Your task to perform on an android device: turn off javascript in the chrome app Image 0: 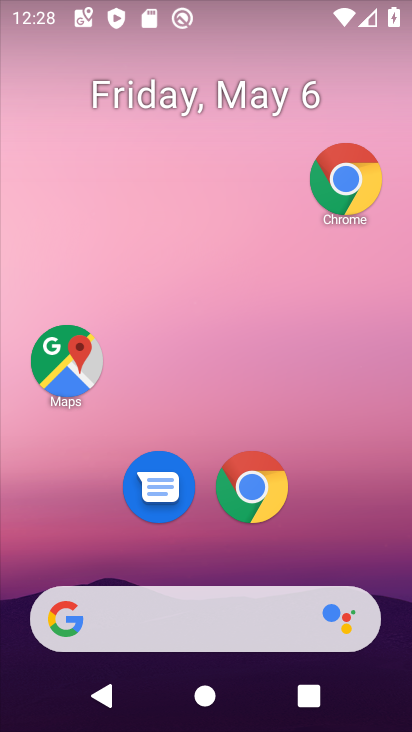
Step 0: click (271, 515)
Your task to perform on an android device: turn off javascript in the chrome app Image 1: 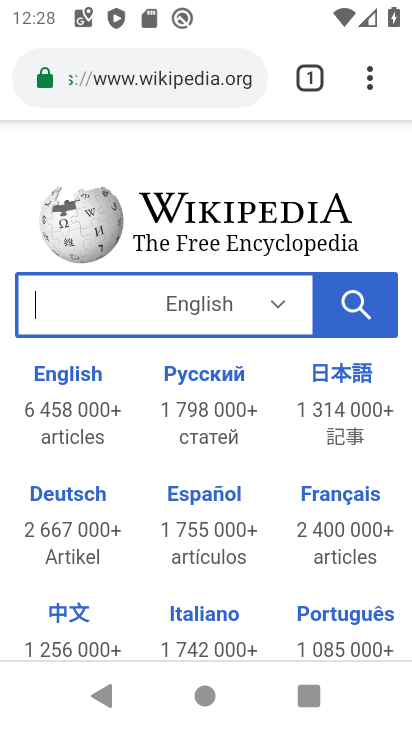
Step 1: click (367, 92)
Your task to perform on an android device: turn off javascript in the chrome app Image 2: 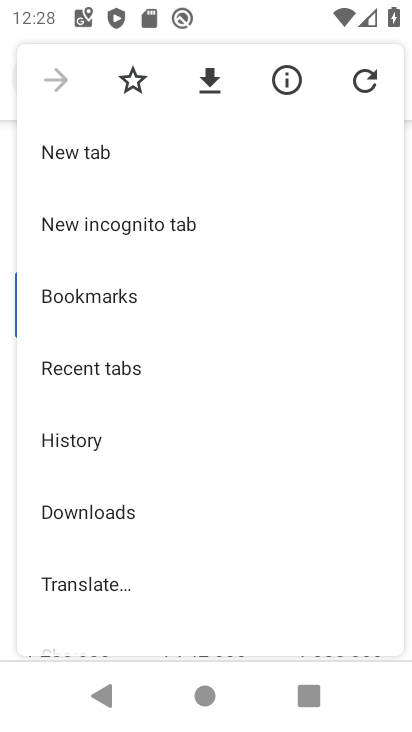
Step 2: drag from (120, 493) to (200, 241)
Your task to perform on an android device: turn off javascript in the chrome app Image 3: 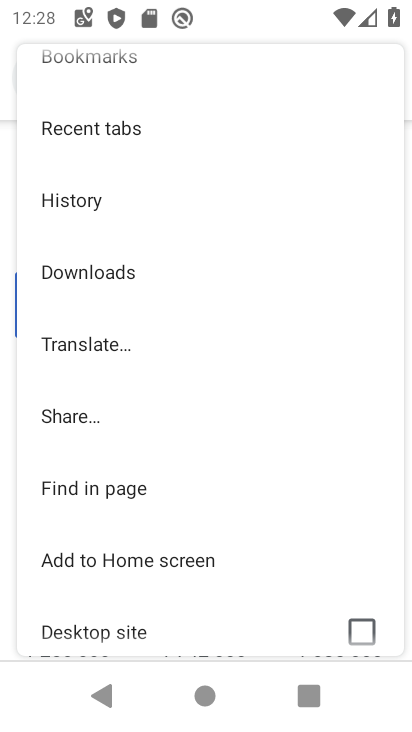
Step 3: drag from (159, 609) to (228, 283)
Your task to perform on an android device: turn off javascript in the chrome app Image 4: 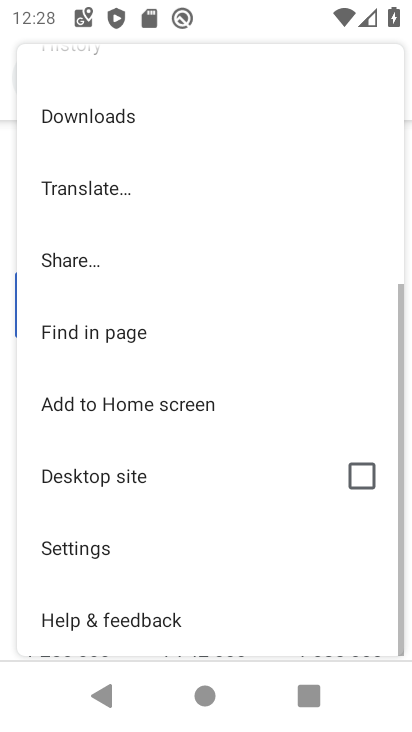
Step 4: click (146, 537)
Your task to perform on an android device: turn off javascript in the chrome app Image 5: 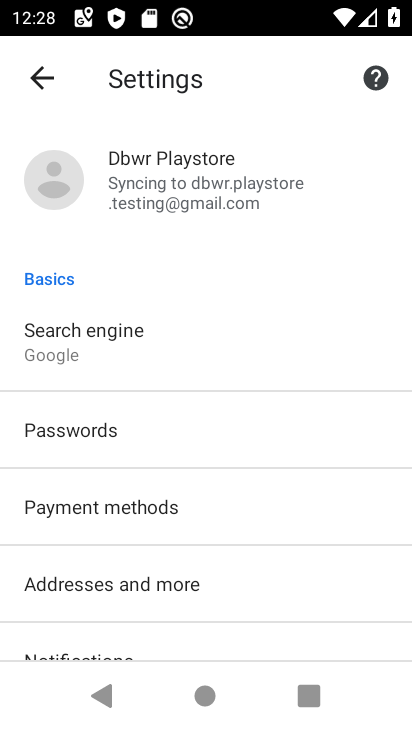
Step 5: drag from (156, 551) to (219, 265)
Your task to perform on an android device: turn off javascript in the chrome app Image 6: 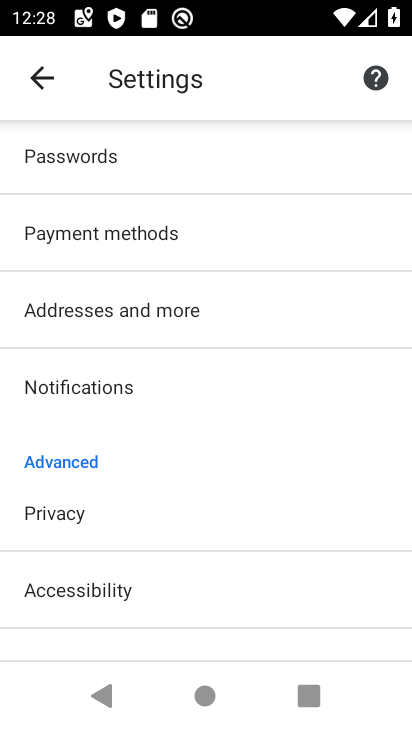
Step 6: drag from (172, 578) to (201, 424)
Your task to perform on an android device: turn off javascript in the chrome app Image 7: 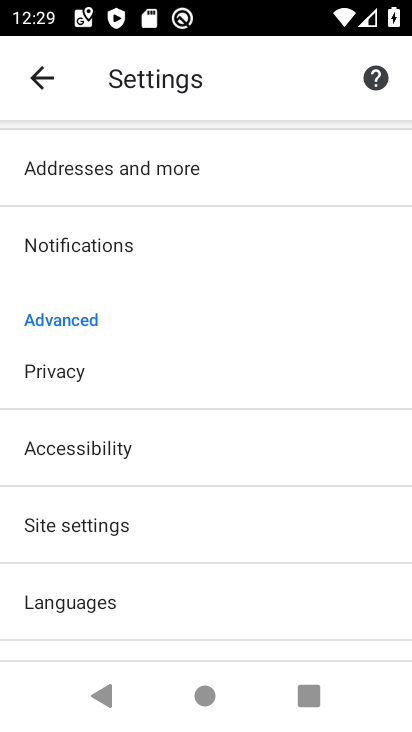
Step 7: drag from (163, 583) to (200, 407)
Your task to perform on an android device: turn off javascript in the chrome app Image 8: 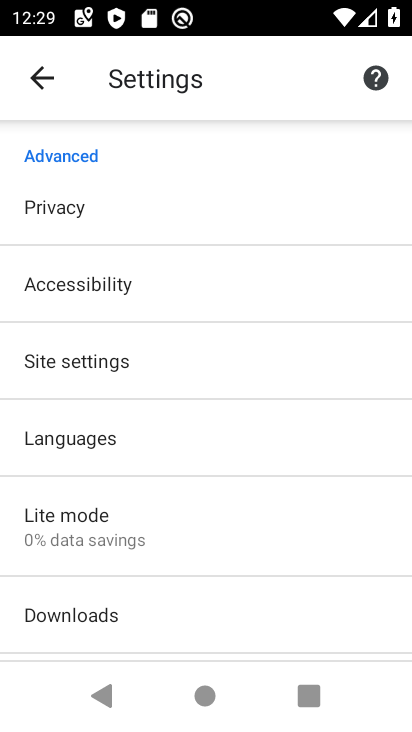
Step 8: click (169, 372)
Your task to perform on an android device: turn off javascript in the chrome app Image 9: 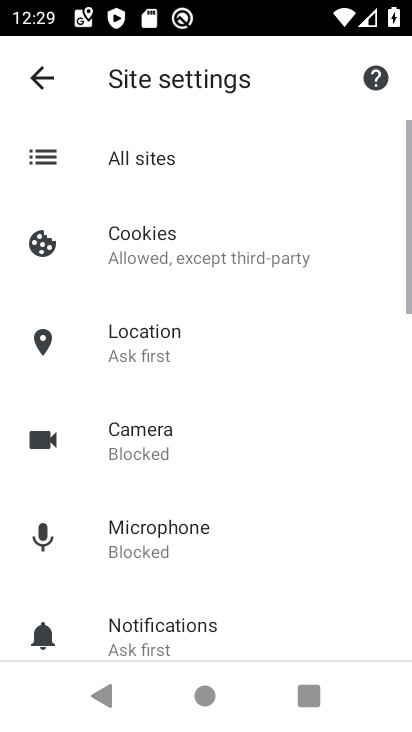
Step 9: drag from (144, 471) to (186, 269)
Your task to perform on an android device: turn off javascript in the chrome app Image 10: 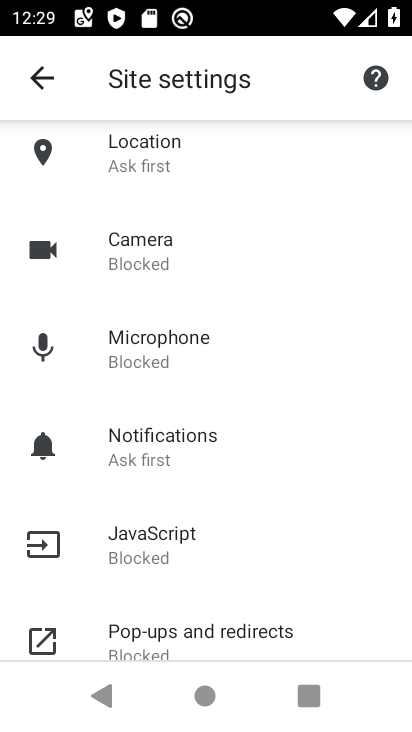
Step 10: click (151, 524)
Your task to perform on an android device: turn off javascript in the chrome app Image 11: 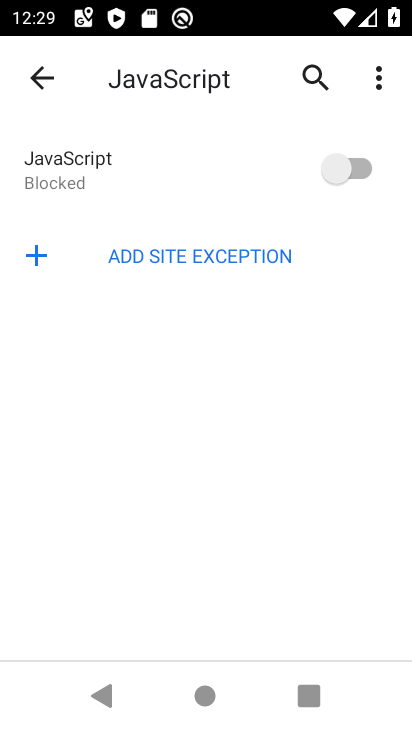
Step 11: task complete